Your task to perform on an android device: open app "Upside-Cash back on gas & food" (install if not already installed) Image 0: 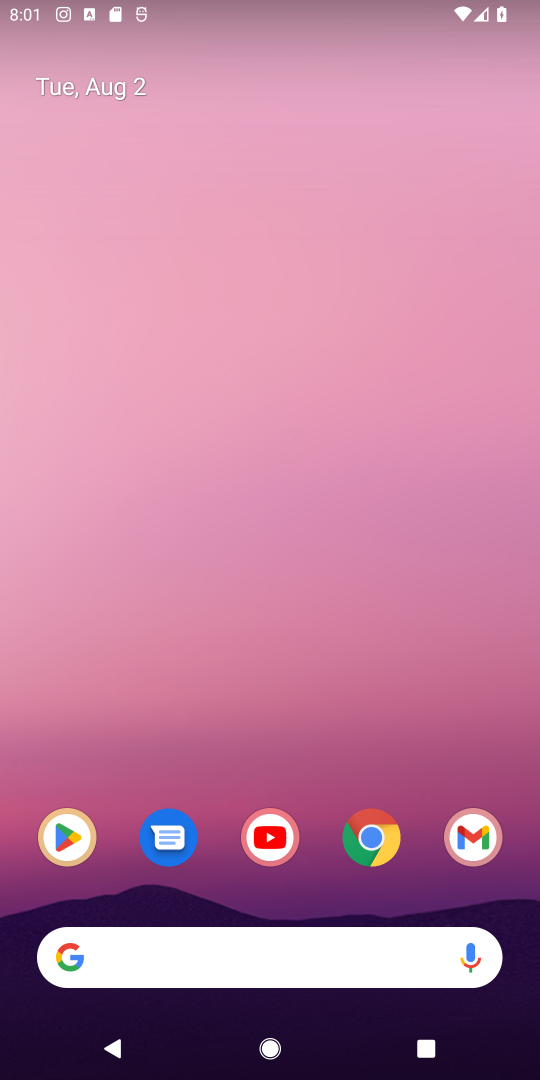
Step 0: click (64, 851)
Your task to perform on an android device: open app "Upside-Cash back on gas & food" (install if not already installed) Image 1: 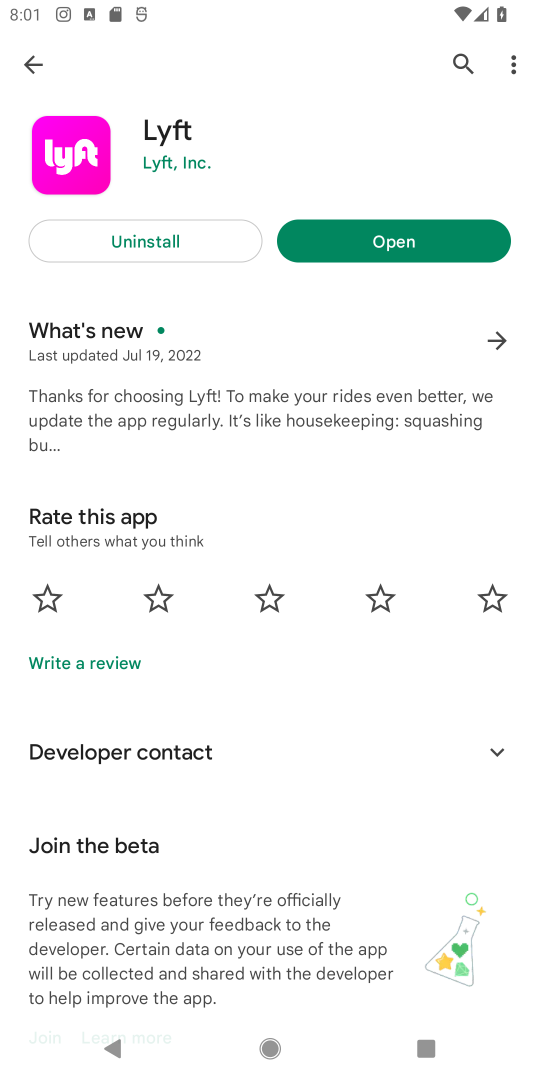
Step 1: click (460, 54)
Your task to perform on an android device: open app "Upside-Cash back on gas & food" (install if not already installed) Image 2: 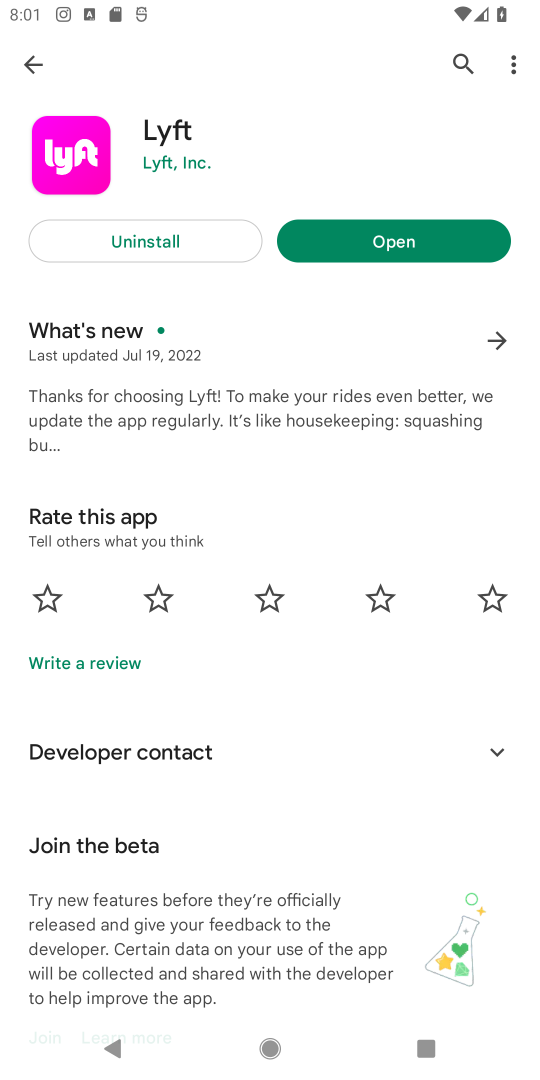
Step 2: click (459, 59)
Your task to perform on an android device: open app "Upside-Cash back on gas & food" (install if not already installed) Image 3: 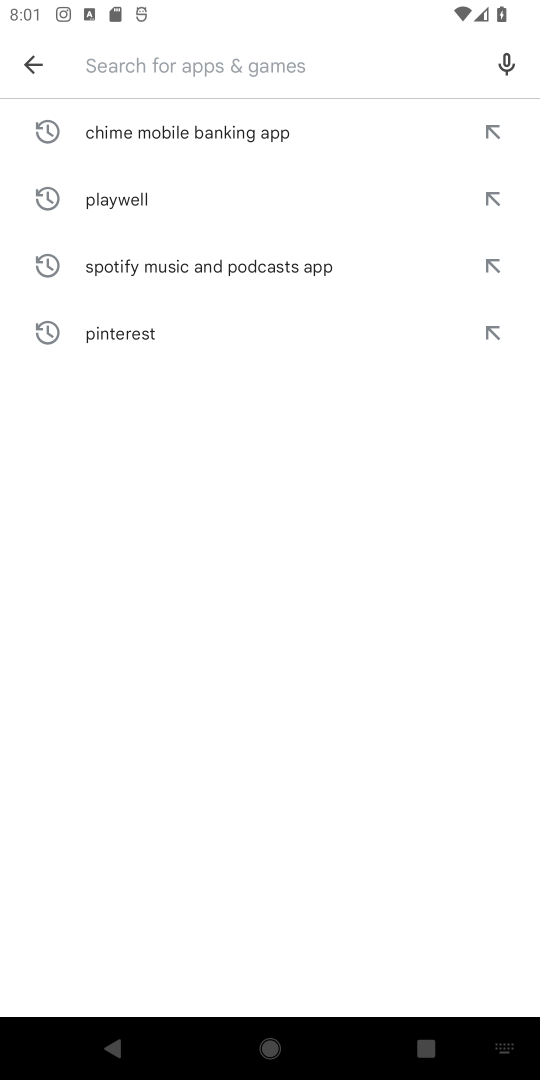
Step 3: type "Upside-Cash back on gas & food"
Your task to perform on an android device: open app "Upside-Cash back on gas & food" (install if not already installed) Image 4: 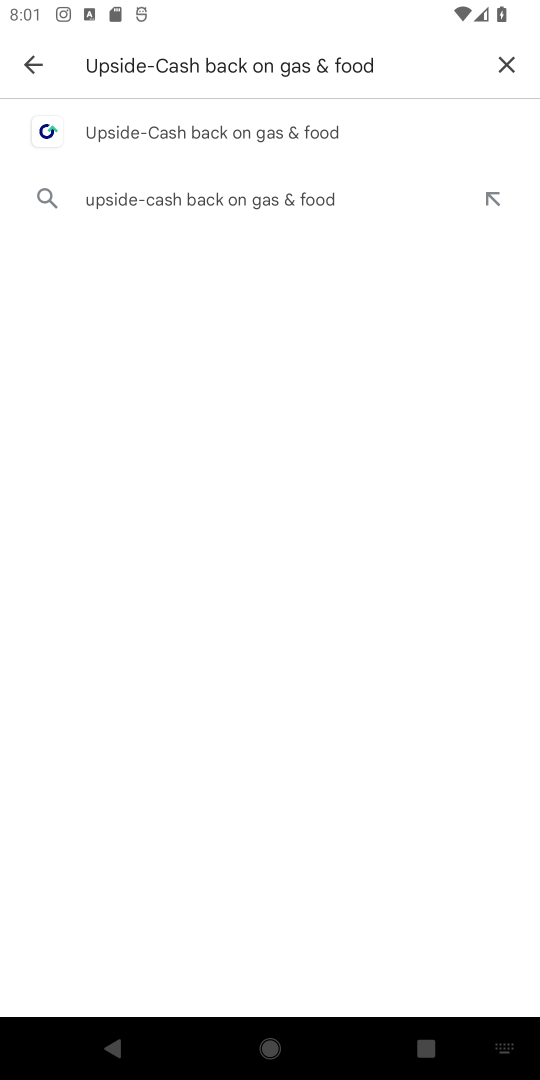
Step 4: click (148, 132)
Your task to perform on an android device: open app "Upside-Cash back on gas & food" (install if not already installed) Image 5: 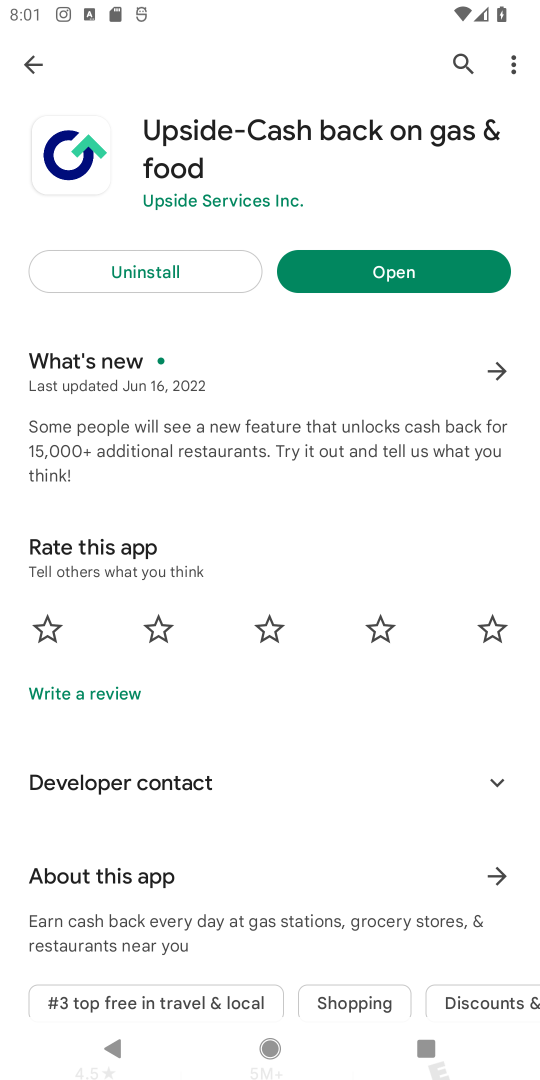
Step 5: click (341, 276)
Your task to perform on an android device: open app "Upside-Cash back on gas & food" (install if not already installed) Image 6: 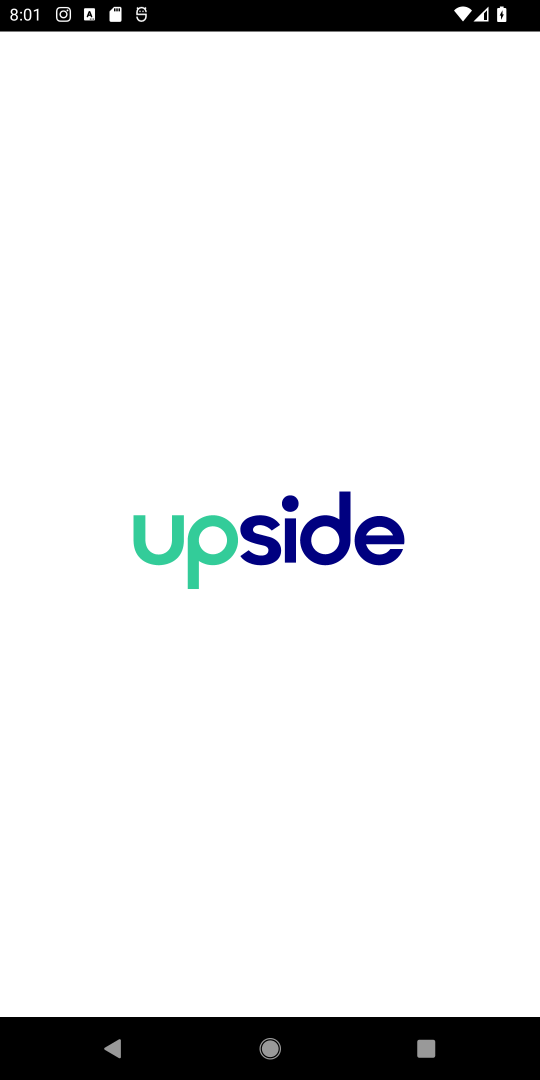
Step 6: task complete